Your task to perform on an android device: Show the shopping cart on target. Search for "panasonic triple a" on target, select the first entry, add it to the cart, then select checkout. Image 0: 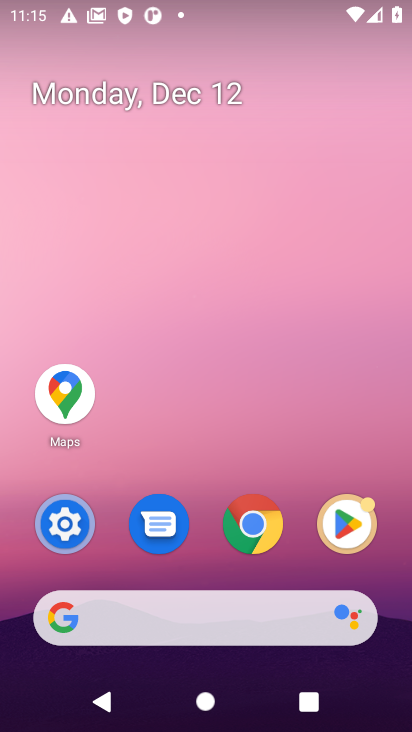
Step 0: click (248, 533)
Your task to perform on an android device: Show the shopping cart on target. Search for "panasonic triple a" on target, select the first entry, add it to the cart, then select checkout. Image 1: 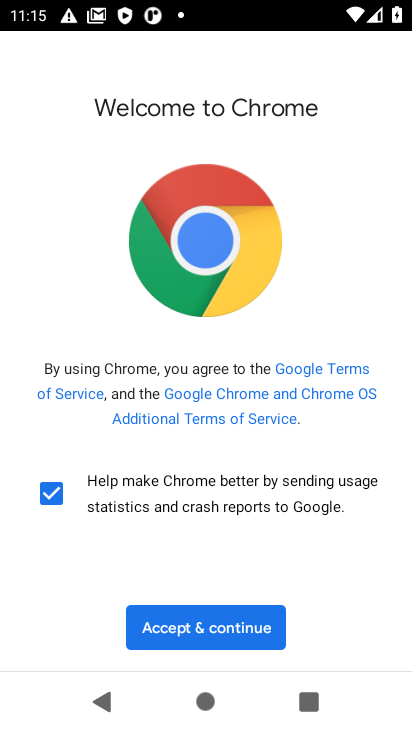
Step 1: click (210, 623)
Your task to perform on an android device: Show the shopping cart on target. Search for "panasonic triple a" on target, select the first entry, add it to the cart, then select checkout. Image 2: 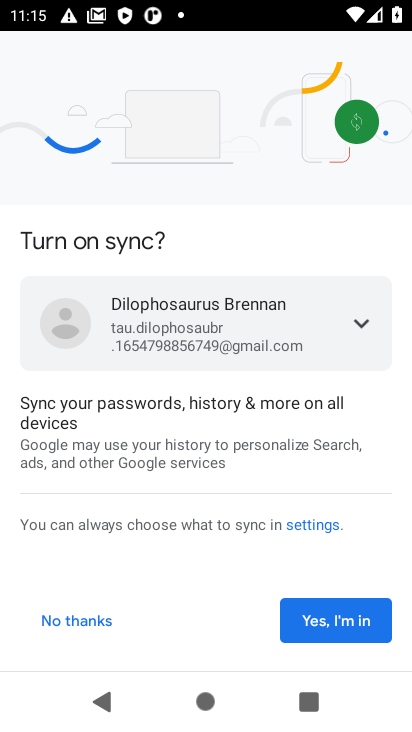
Step 2: click (81, 625)
Your task to perform on an android device: Show the shopping cart on target. Search for "panasonic triple a" on target, select the first entry, add it to the cart, then select checkout. Image 3: 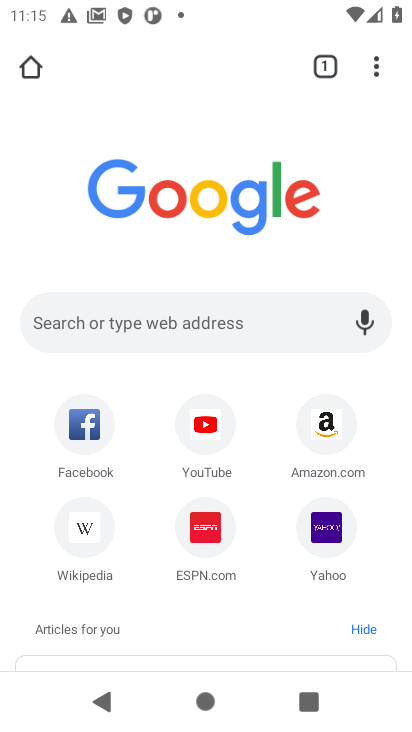
Step 3: click (141, 319)
Your task to perform on an android device: Show the shopping cart on target. Search for "panasonic triple a" on target, select the first entry, add it to the cart, then select checkout. Image 4: 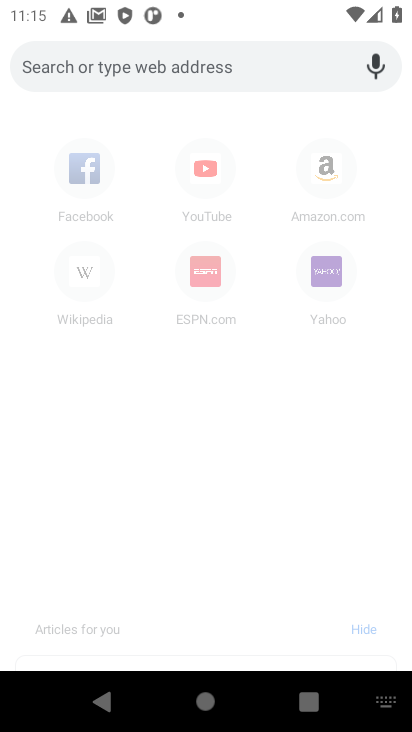
Step 4: type "target.com"
Your task to perform on an android device: Show the shopping cart on target. Search for "panasonic triple a" on target, select the first entry, add it to the cart, then select checkout. Image 5: 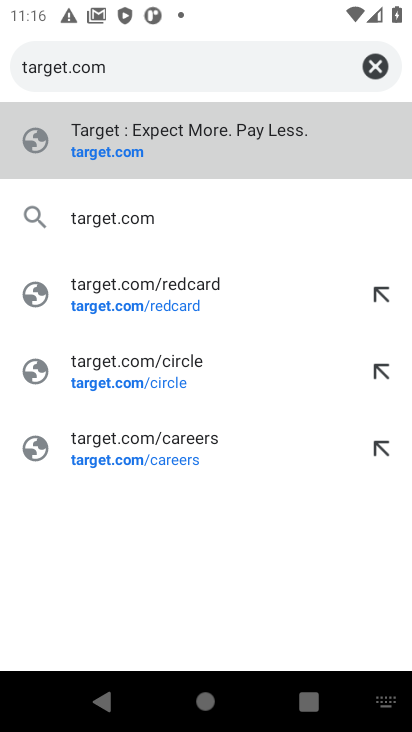
Step 5: click (106, 163)
Your task to perform on an android device: Show the shopping cart on target. Search for "panasonic triple a" on target, select the first entry, add it to the cart, then select checkout. Image 6: 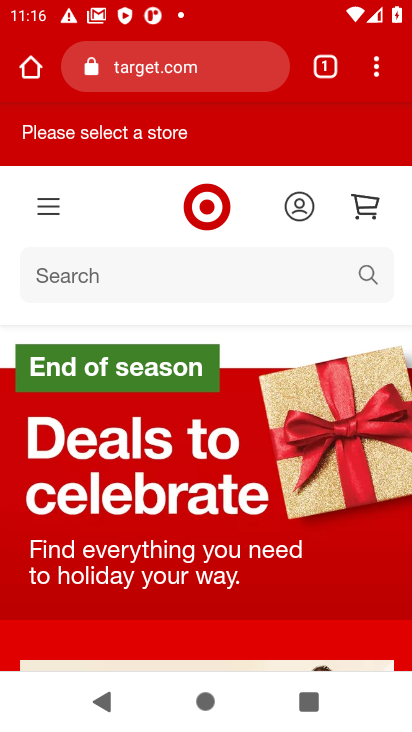
Step 6: click (364, 210)
Your task to perform on an android device: Show the shopping cart on target. Search for "panasonic triple a" on target, select the first entry, add it to the cart, then select checkout. Image 7: 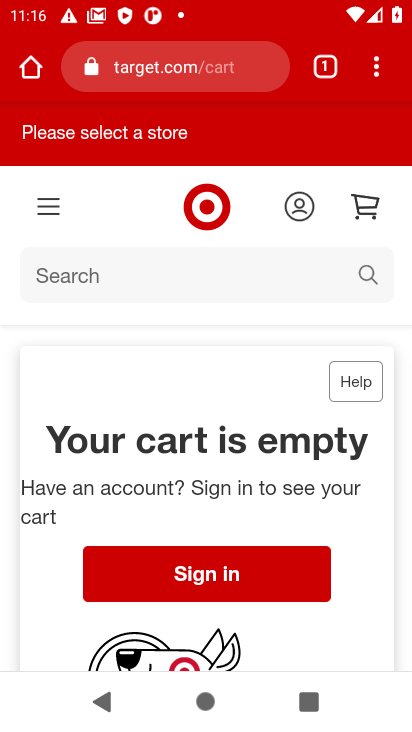
Step 7: click (59, 280)
Your task to perform on an android device: Show the shopping cart on target. Search for "panasonic triple a" on target, select the first entry, add it to the cart, then select checkout. Image 8: 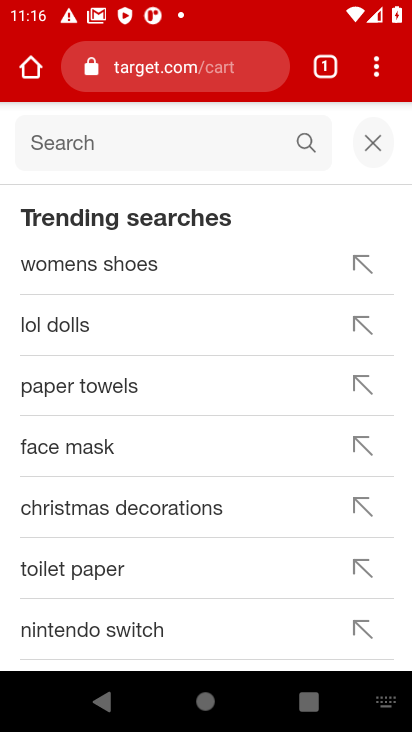
Step 8: type "usb-a to usb-b"
Your task to perform on an android device: Show the shopping cart on target. Search for "panasonic triple a" on target, select the first entry, add it to the cart, then select checkout. Image 9: 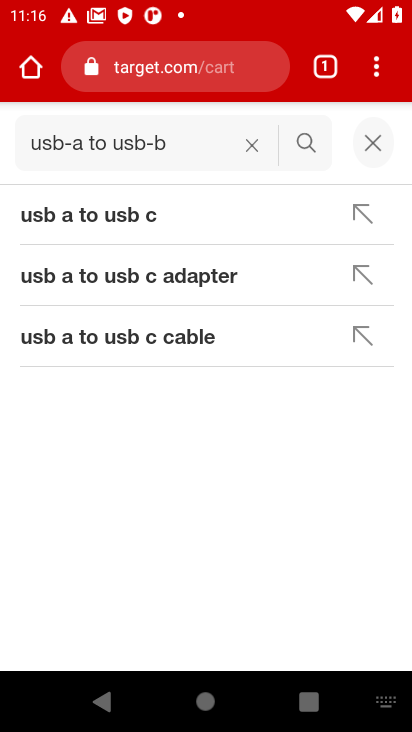
Step 9: click (251, 147)
Your task to perform on an android device: Show the shopping cart on target. Search for "panasonic triple a" on target, select the first entry, add it to the cart, then select checkout. Image 10: 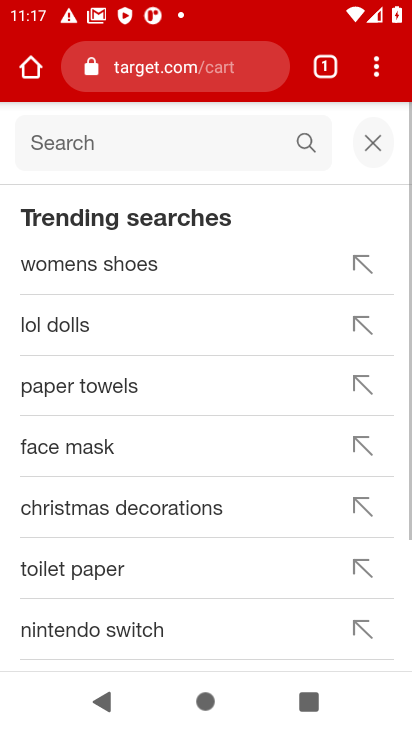
Step 10: click (79, 153)
Your task to perform on an android device: Show the shopping cart on target. Search for "panasonic triple a" on target, select the first entry, add it to the cart, then select checkout. Image 11: 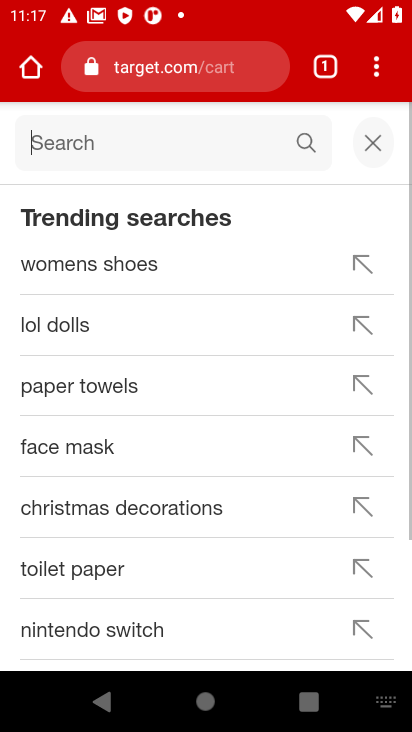
Step 11: type "panasonic triple a"
Your task to perform on an android device: Show the shopping cart on target. Search for "panasonic triple a" on target, select the first entry, add it to the cart, then select checkout. Image 12: 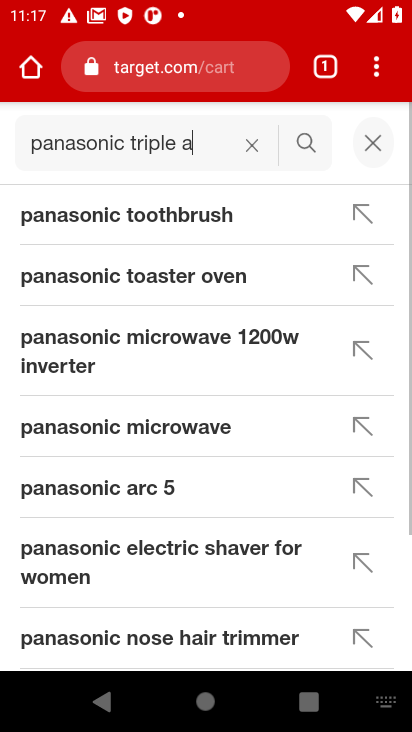
Step 12: click (296, 145)
Your task to perform on an android device: Show the shopping cart on target. Search for "panasonic triple a" on target, select the first entry, add it to the cart, then select checkout. Image 13: 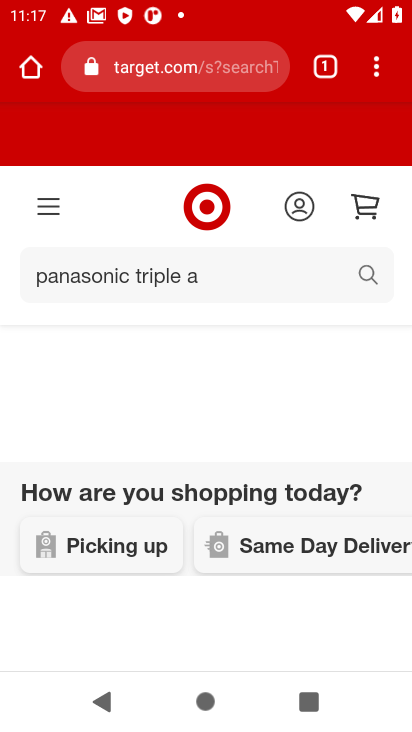
Step 13: task complete